Your task to perform on an android device: turn off location Image 0: 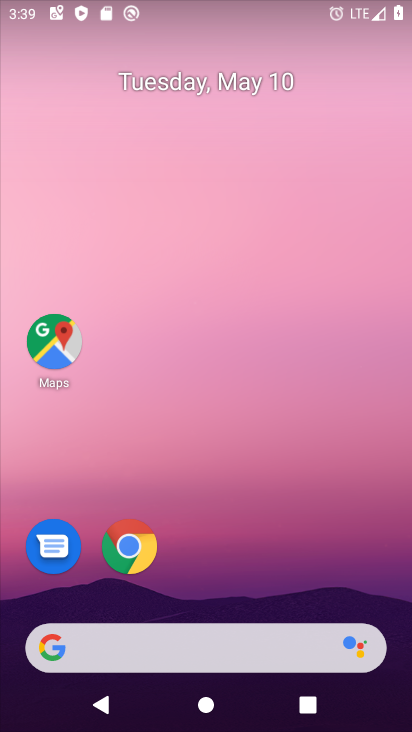
Step 0: drag from (268, 430) to (299, 105)
Your task to perform on an android device: turn off location Image 1: 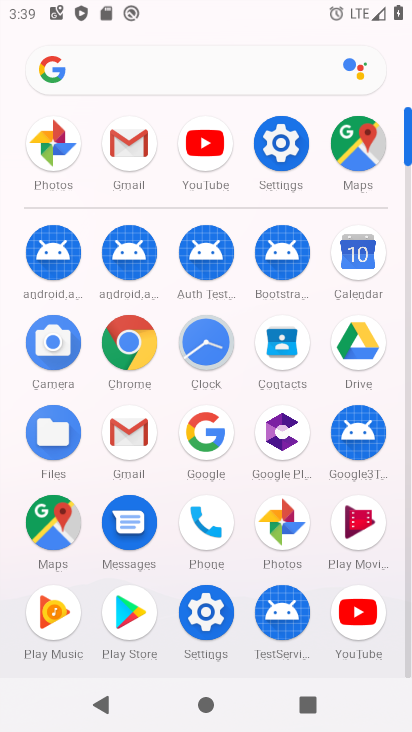
Step 1: drag from (227, 607) to (223, 159)
Your task to perform on an android device: turn off location Image 2: 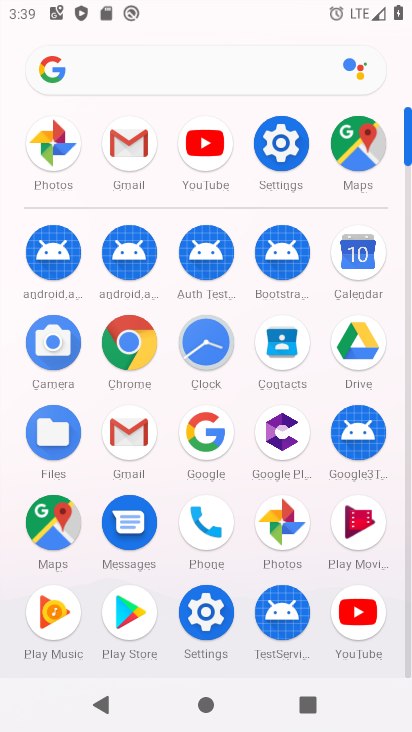
Step 2: click (277, 154)
Your task to perform on an android device: turn off location Image 3: 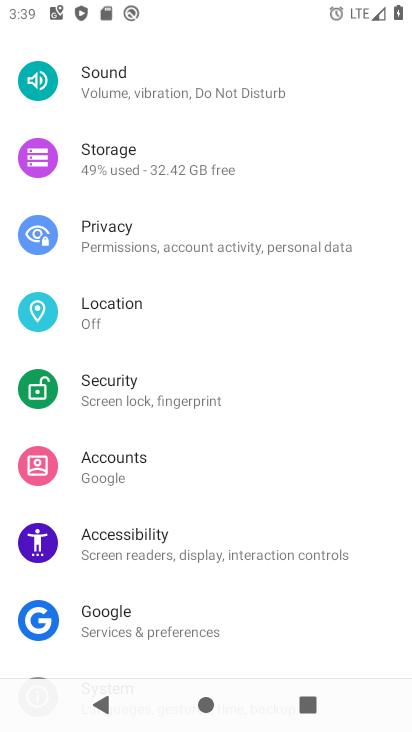
Step 3: click (133, 321)
Your task to perform on an android device: turn off location Image 4: 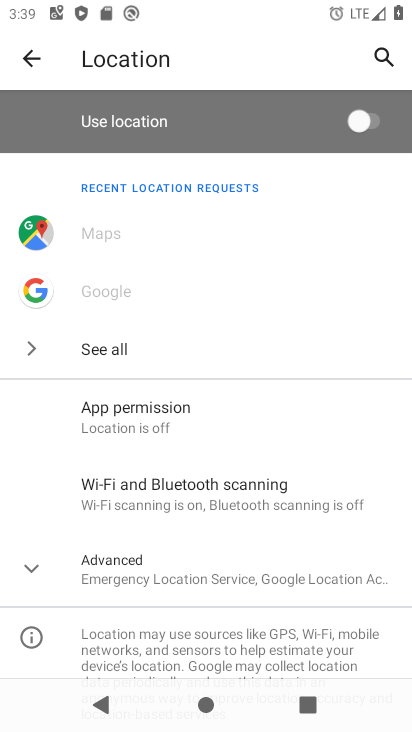
Step 4: task complete